Your task to perform on an android device: open a new tab in the chrome app Image 0: 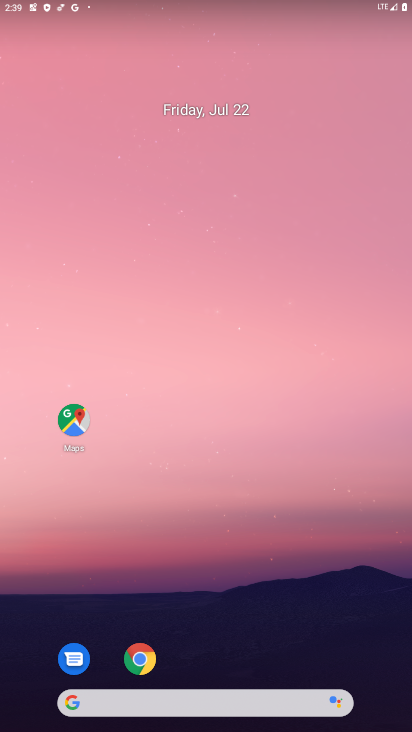
Step 0: click (143, 657)
Your task to perform on an android device: open a new tab in the chrome app Image 1: 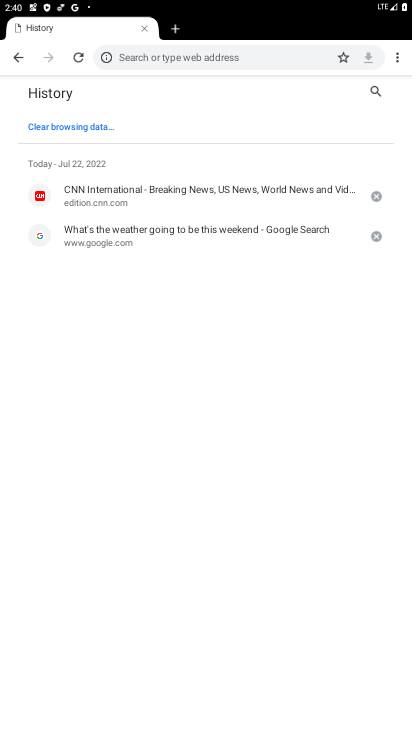
Step 1: click (397, 53)
Your task to perform on an android device: open a new tab in the chrome app Image 2: 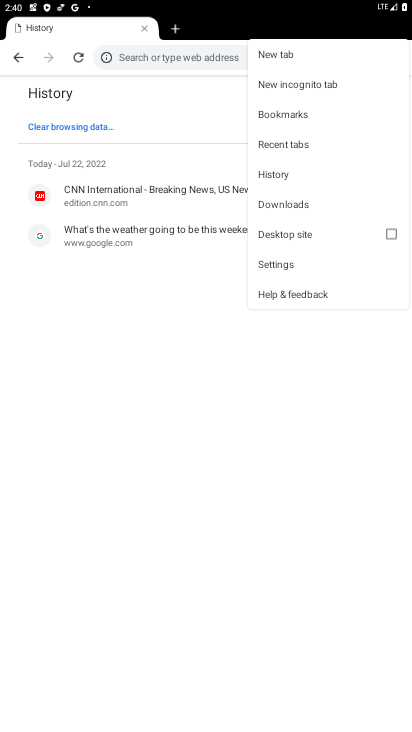
Step 2: click (313, 54)
Your task to perform on an android device: open a new tab in the chrome app Image 3: 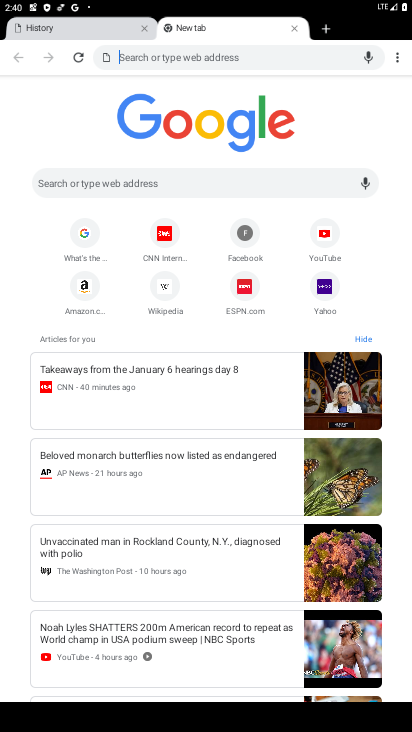
Step 3: task complete